Your task to perform on an android device: Open my contact list Image 0: 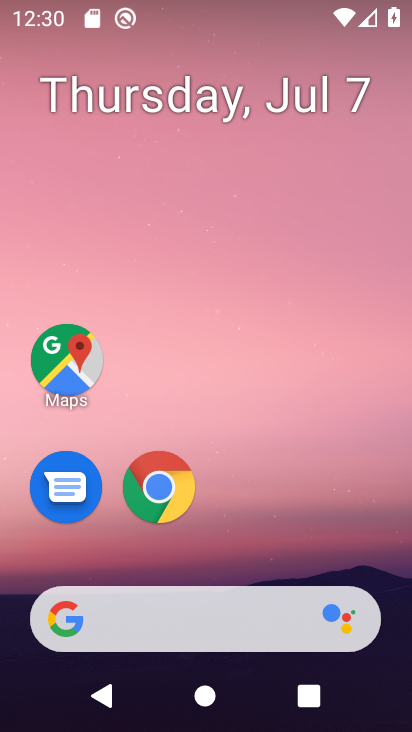
Step 0: drag from (363, 505) to (350, 107)
Your task to perform on an android device: Open my contact list Image 1: 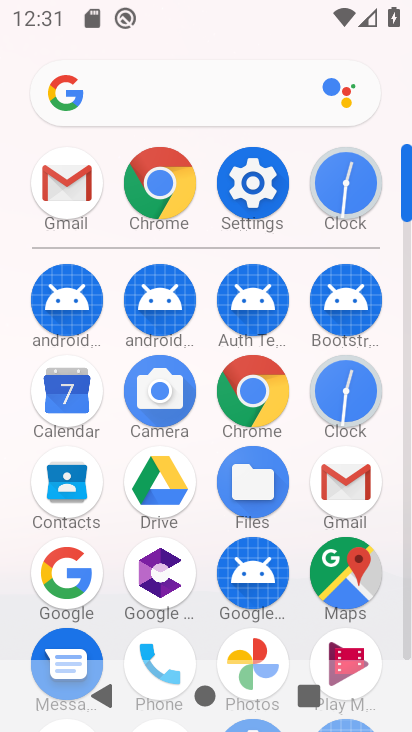
Step 1: click (88, 488)
Your task to perform on an android device: Open my contact list Image 2: 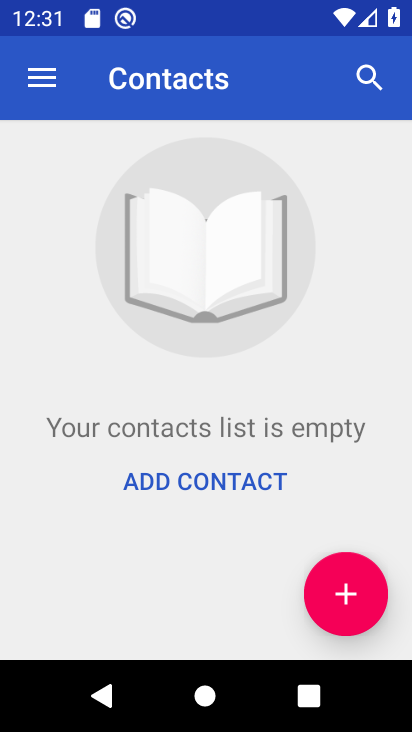
Step 2: task complete